Your task to perform on an android device: Go to Google Image 0: 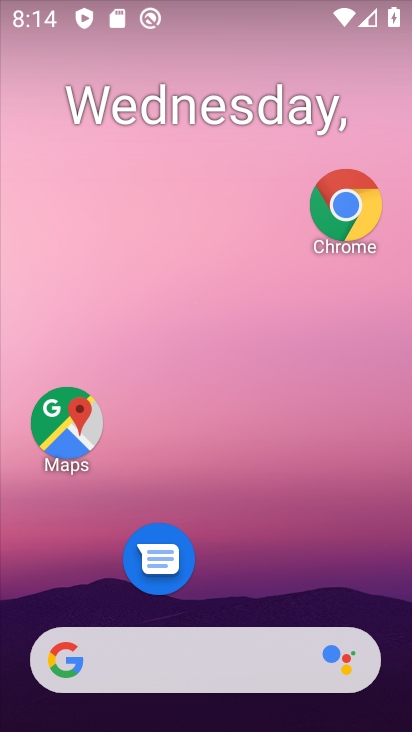
Step 0: drag from (219, 583) to (251, 225)
Your task to perform on an android device: Go to Google Image 1: 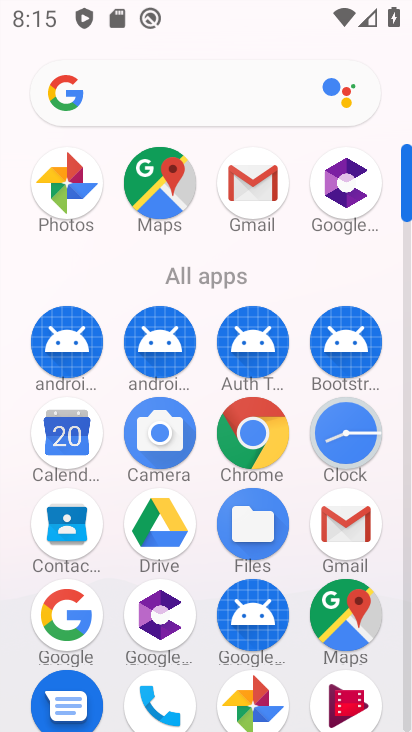
Step 1: drag from (202, 646) to (199, 222)
Your task to perform on an android device: Go to Google Image 2: 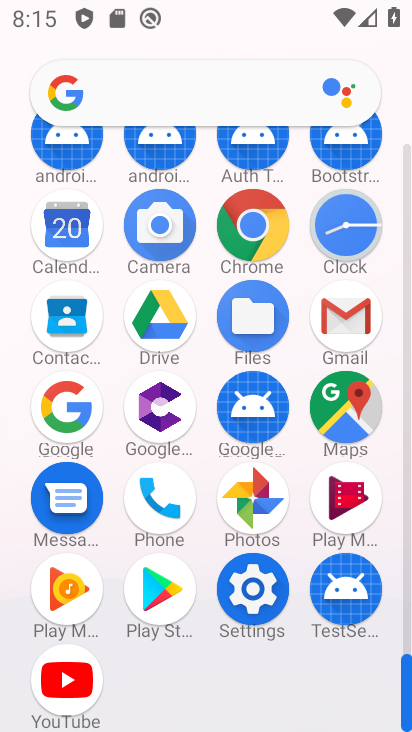
Step 2: click (86, 391)
Your task to perform on an android device: Go to Google Image 3: 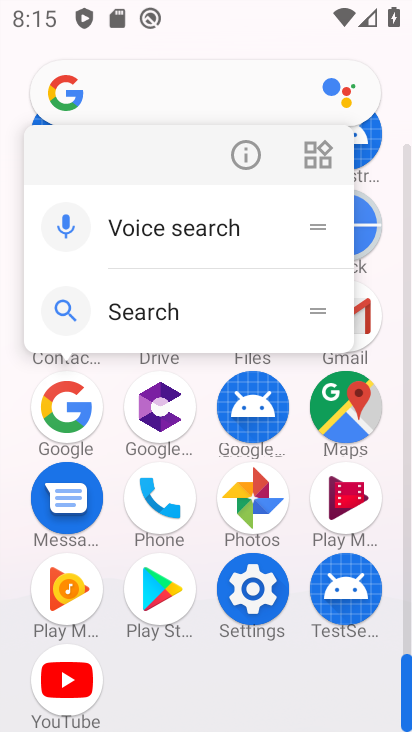
Step 3: click (252, 169)
Your task to perform on an android device: Go to Google Image 4: 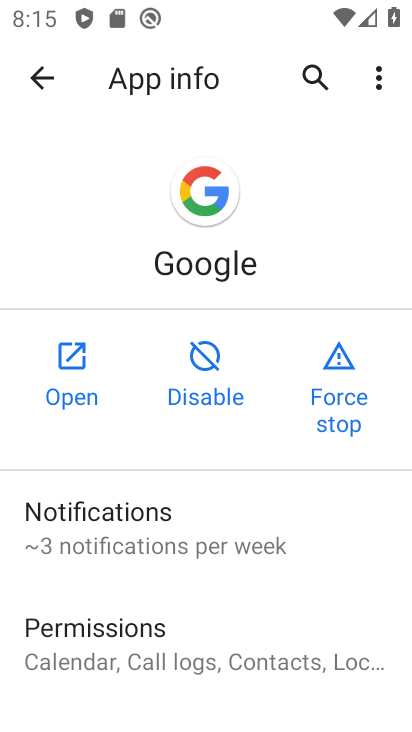
Step 4: click (60, 365)
Your task to perform on an android device: Go to Google Image 5: 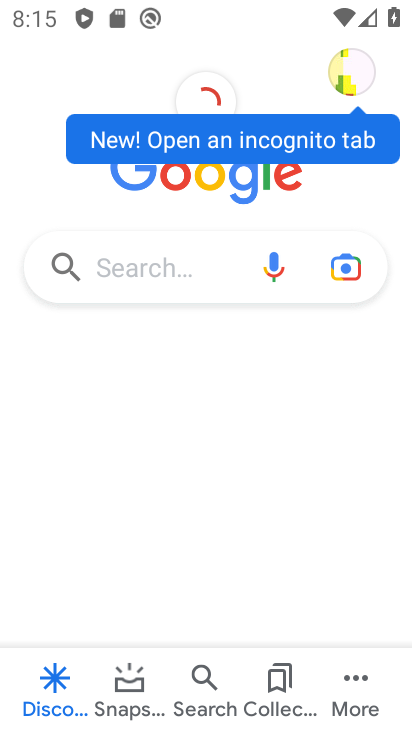
Step 5: task complete